Your task to perform on an android device: Show me productivity apps on the Play Store Image 0: 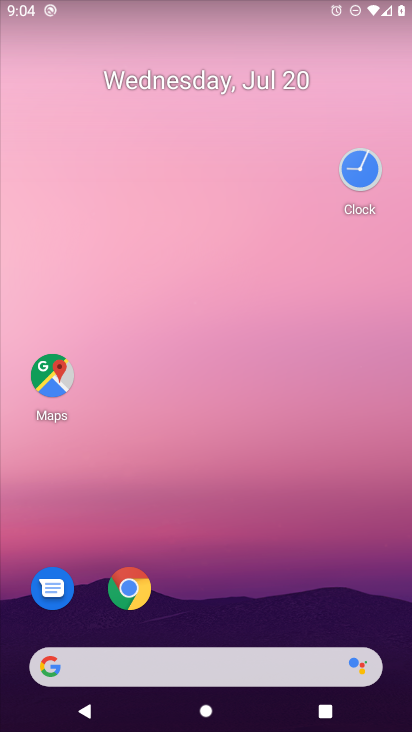
Step 0: drag from (49, 702) to (191, 2)
Your task to perform on an android device: Show me productivity apps on the Play Store Image 1: 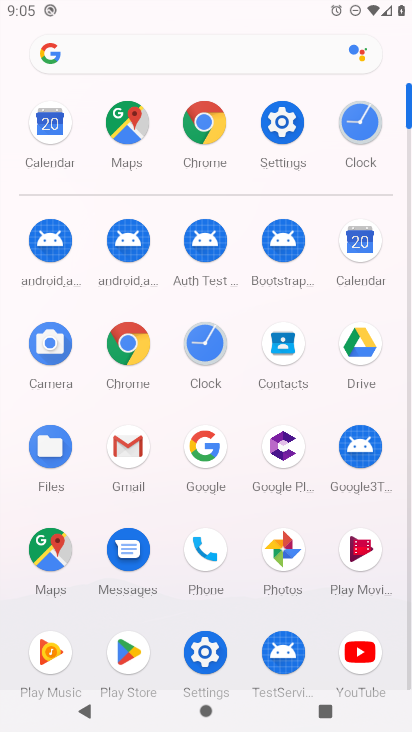
Step 1: click (145, 644)
Your task to perform on an android device: Show me productivity apps on the Play Store Image 2: 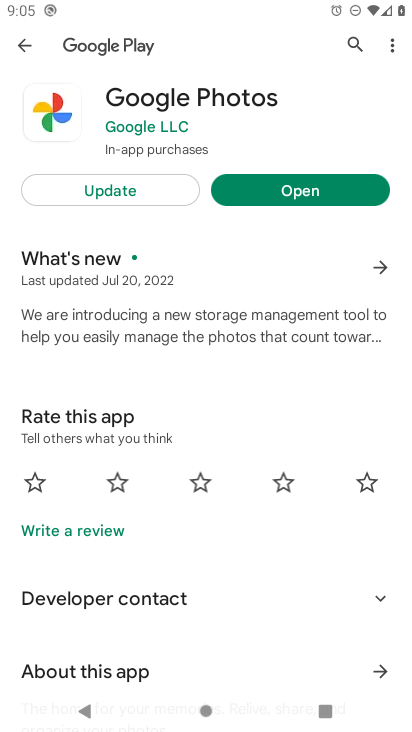
Step 2: click (22, 50)
Your task to perform on an android device: Show me productivity apps on the Play Store Image 3: 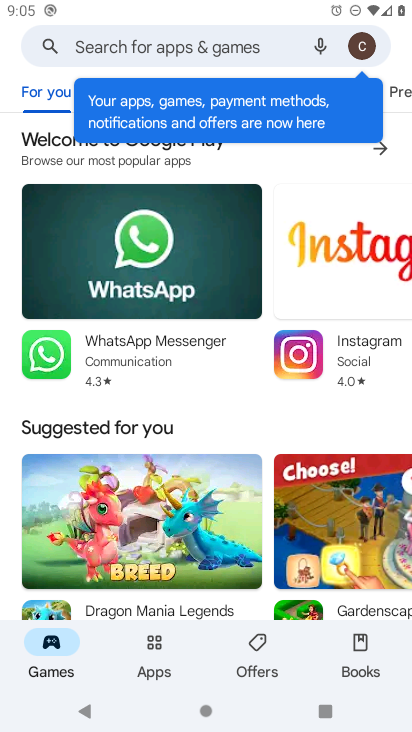
Step 3: click (96, 42)
Your task to perform on an android device: Show me productivity apps on the Play Store Image 4: 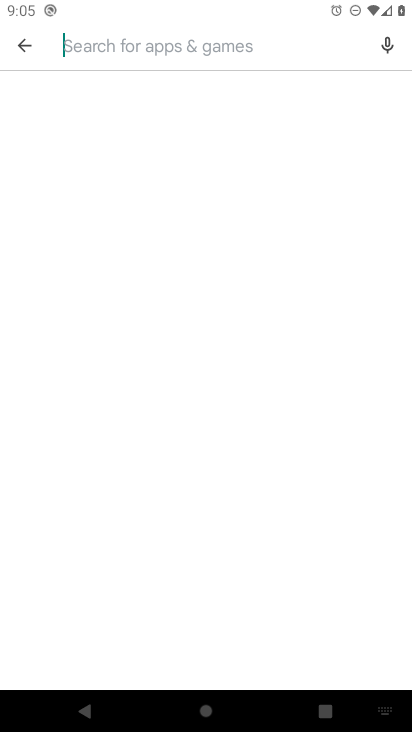
Step 4: type "productivity apps"
Your task to perform on an android device: Show me productivity apps on the Play Store Image 5: 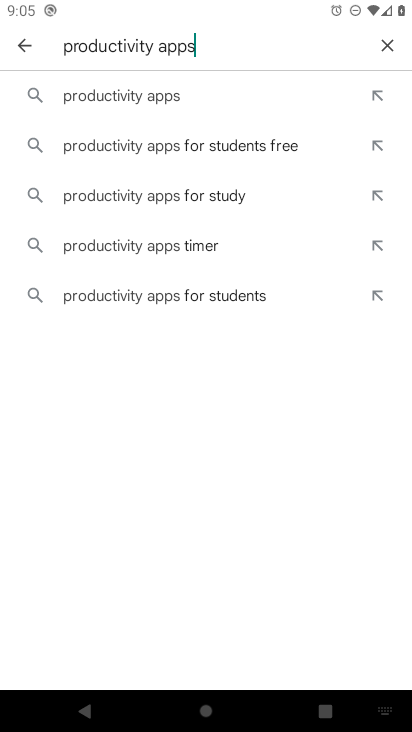
Step 5: type ""
Your task to perform on an android device: Show me productivity apps on the Play Store Image 6: 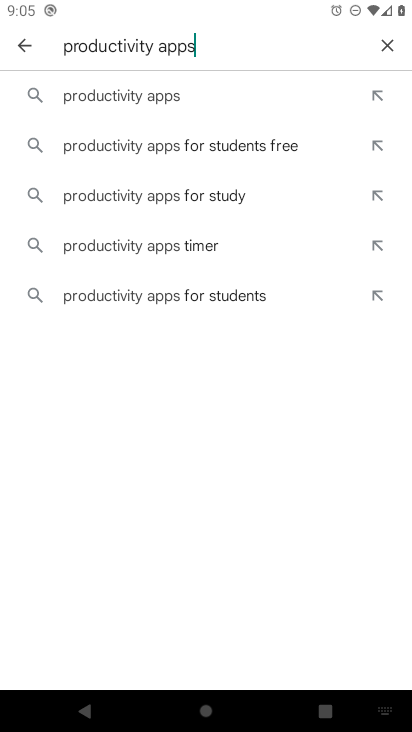
Step 6: click (141, 100)
Your task to perform on an android device: Show me productivity apps on the Play Store Image 7: 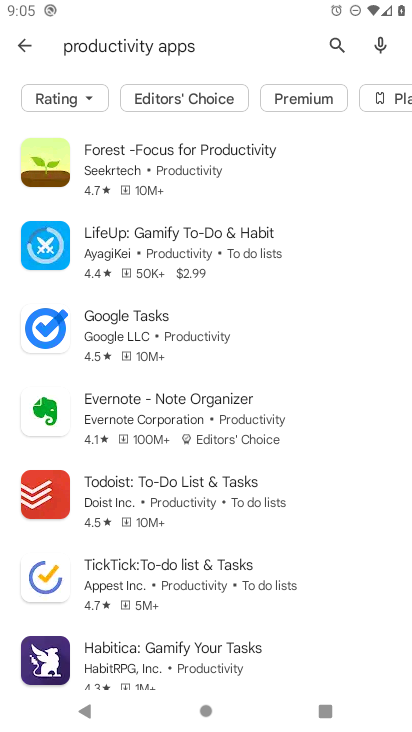
Step 7: task complete